Your task to perform on an android device: Go to Wikipedia Image 0: 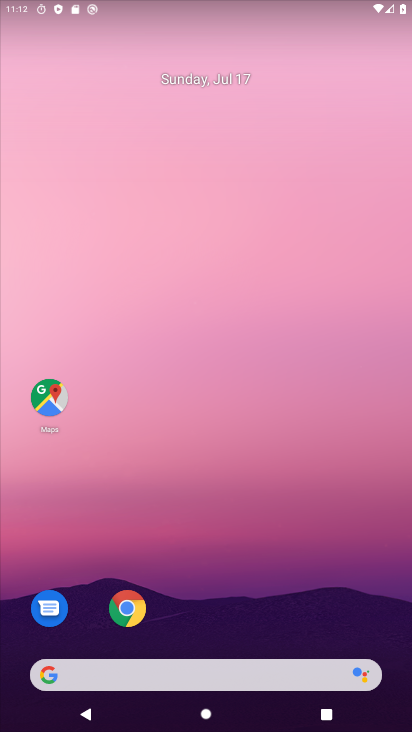
Step 0: click (117, 609)
Your task to perform on an android device: Go to Wikipedia Image 1: 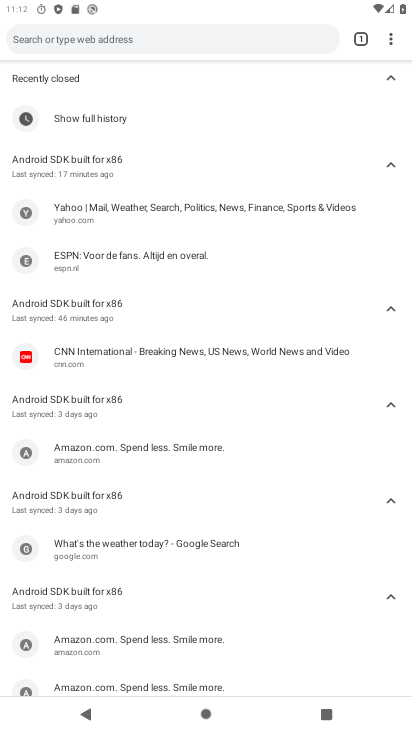
Step 1: click (123, 36)
Your task to perform on an android device: Go to Wikipedia Image 2: 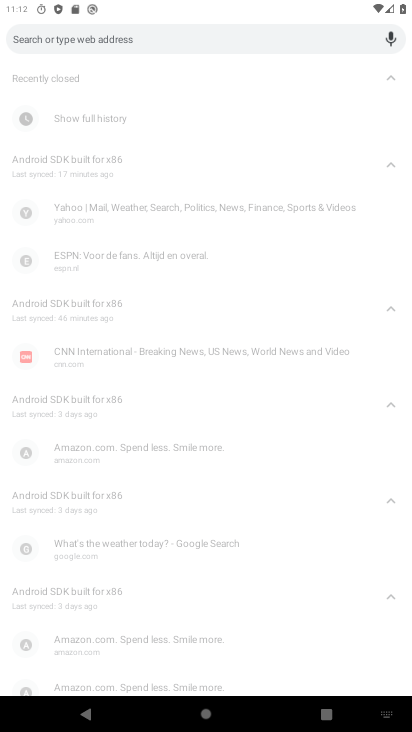
Step 2: type "wikipedia"
Your task to perform on an android device: Go to Wikipedia Image 3: 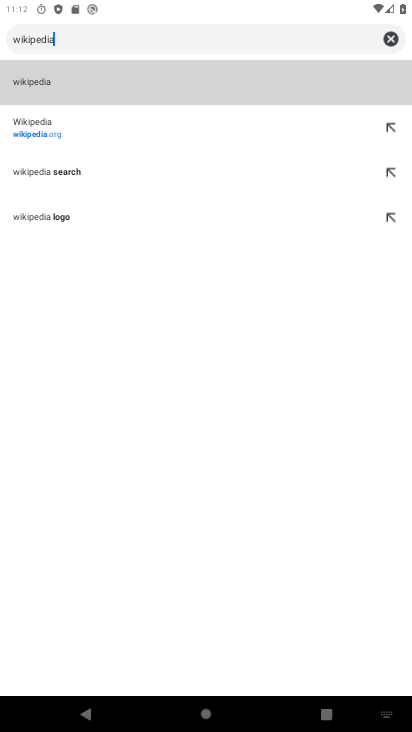
Step 3: click (137, 78)
Your task to perform on an android device: Go to Wikipedia Image 4: 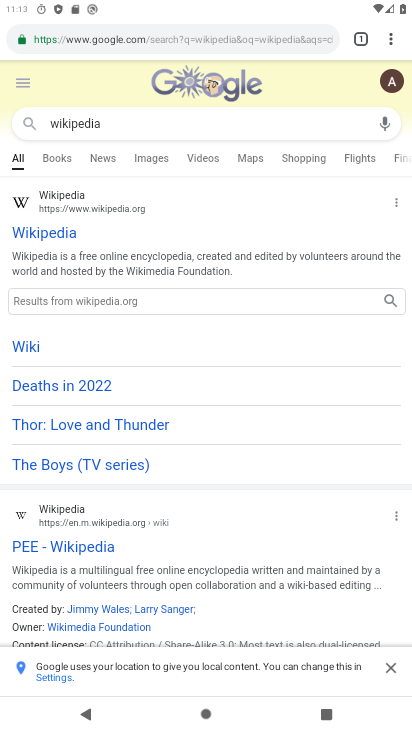
Step 4: click (27, 232)
Your task to perform on an android device: Go to Wikipedia Image 5: 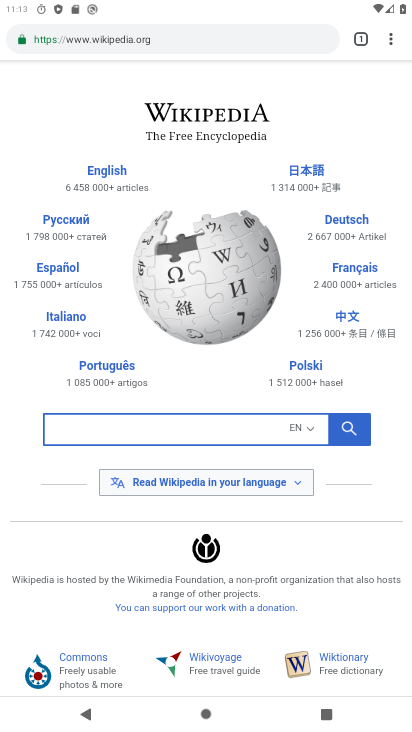
Step 5: task complete